Your task to perform on an android device: allow cookies in the chrome app Image 0: 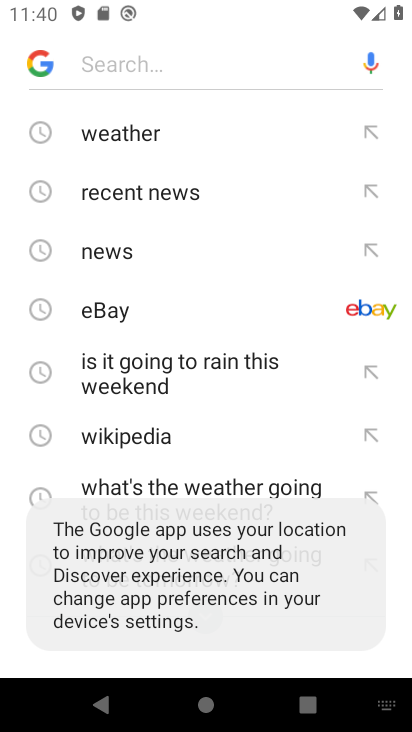
Step 0: press home button
Your task to perform on an android device: allow cookies in the chrome app Image 1: 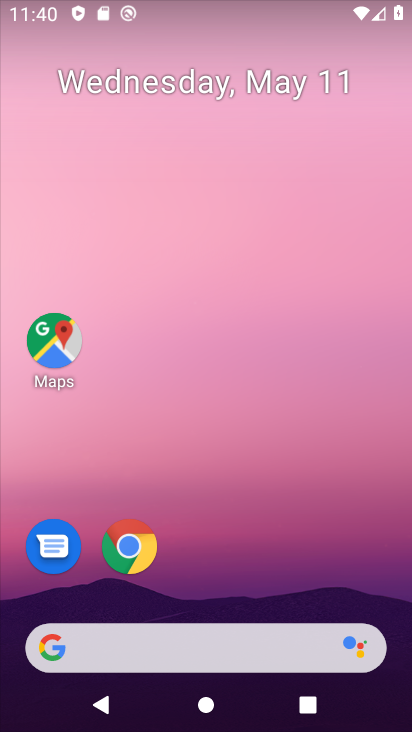
Step 1: click (119, 543)
Your task to perform on an android device: allow cookies in the chrome app Image 2: 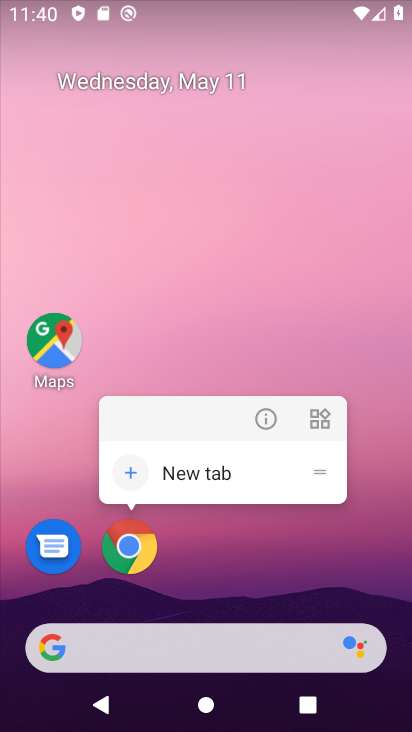
Step 2: click (139, 550)
Your task to perform on an android device: allow cookies in the chrome app Image 3: 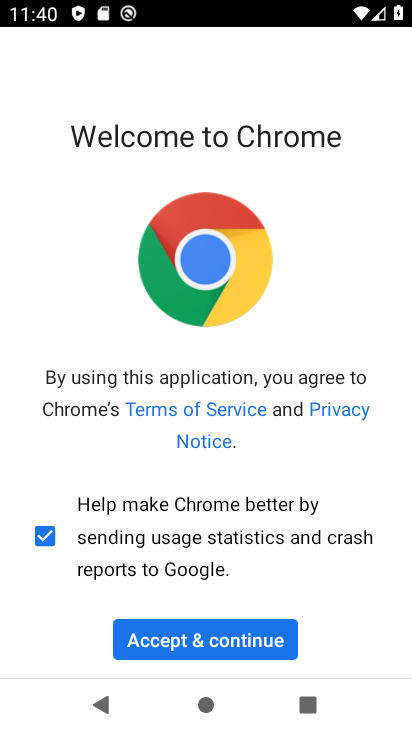
Step 3: click (249, 638)
Your task to perform on an android device: allow cookies in the chrome app Image 4: 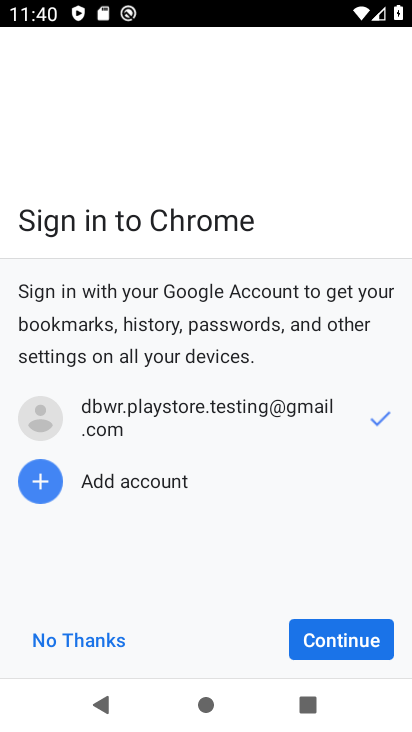
Step 4: click (321, 644)
Your task to perform on an android device: allow cookies in the chrome app Image 5: 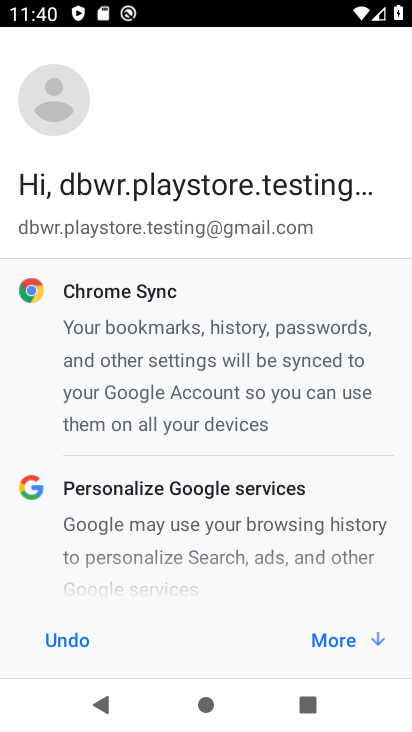
Step 5: click (333, 635)
Your task to perform on an android device: allow cookies in the chrome app Image 6: 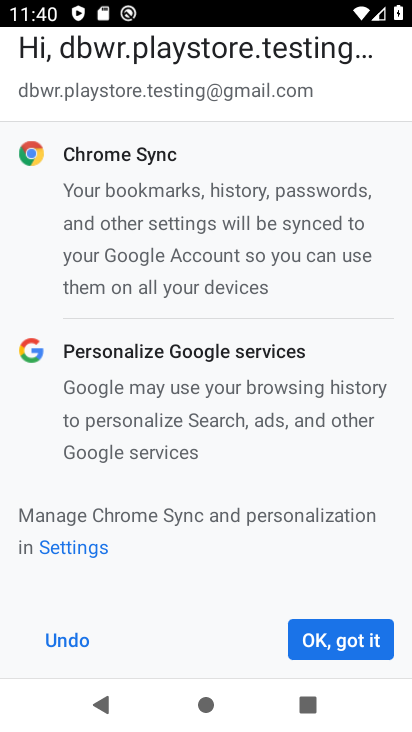
Step 6: click (312, 636)
Your task to perform on an android device: allow cookies in the chrome app Image 7: 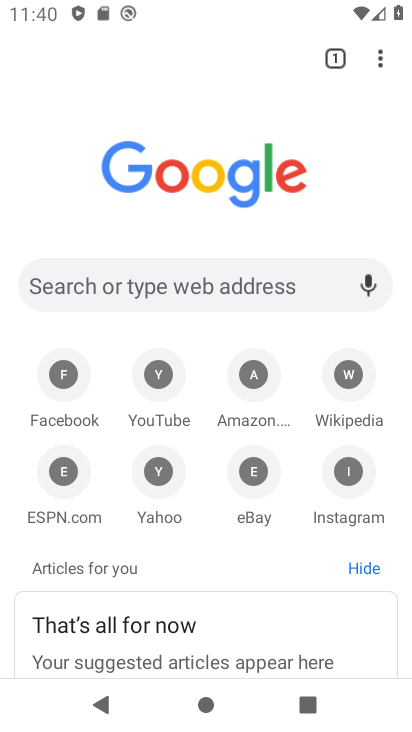
Step 7: click (379, 65)
Your task to perform on an android device: allow cookies in the chrome app Image 8: 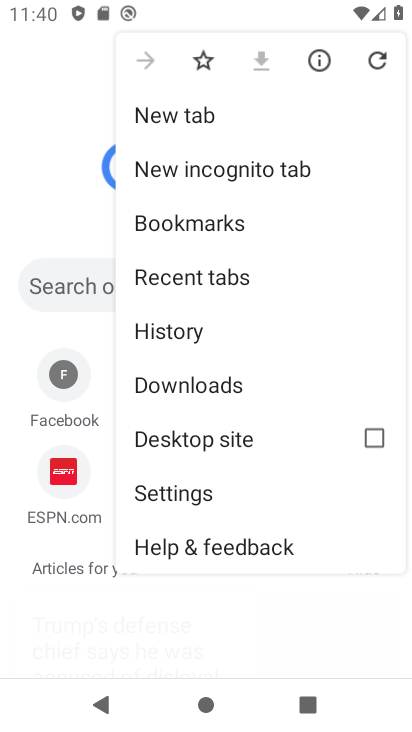
Step 8: click (225, 491)
Your task to perform on an android device: allow cookies in the chrome app Image 9: 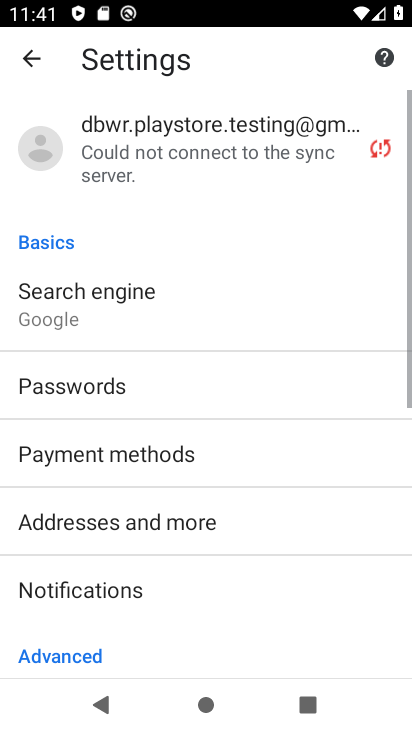
Step 9: drag from (88, 584) to (145, 153)
Your task to perform on an android device: allow cookies in the chrome app Image 10: 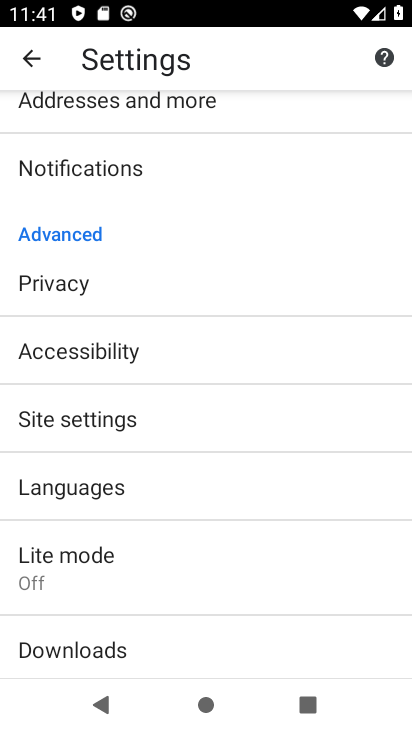
Step 10: click (41, 437)
Your task to perform on an android device: allow cookies in the chrome app Image 11: 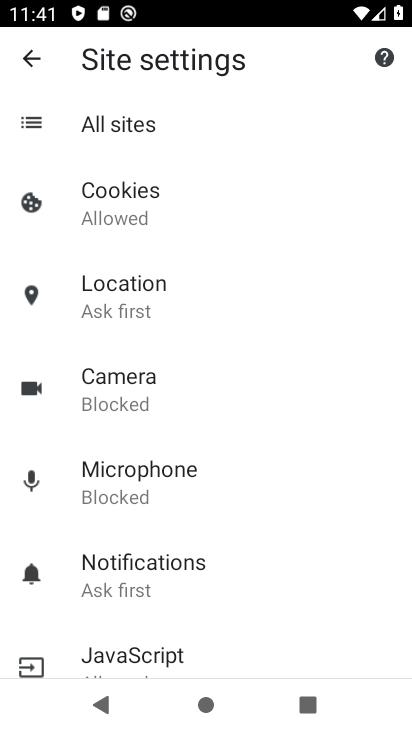
Step 11: click (155, 201)
Your task to perform on an android device: allow cookies in the chrome app Image 12: 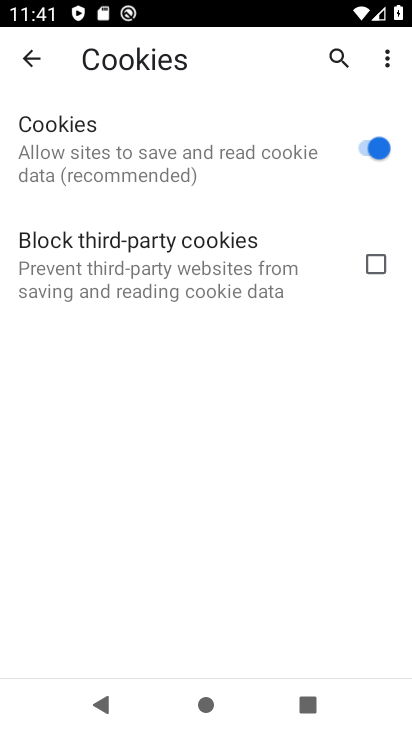
Step 12: task complete